Your task to perform on an android device: allow notifications from all sites in the chrome app Image 0: 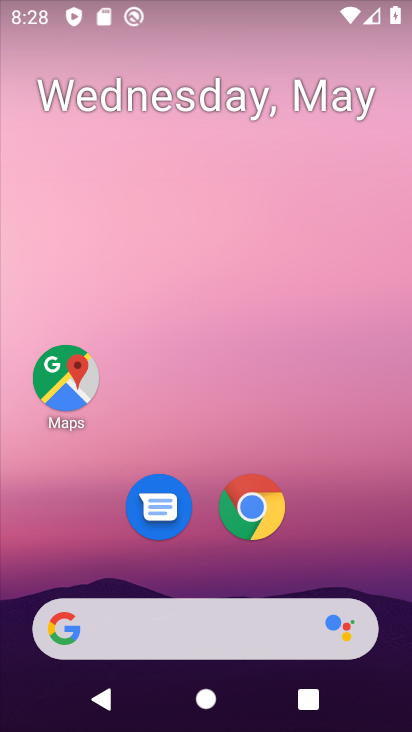
Step 0: press home button
Your task to perform on an android device: allow notifications from all sites in the chrome app Image 1: 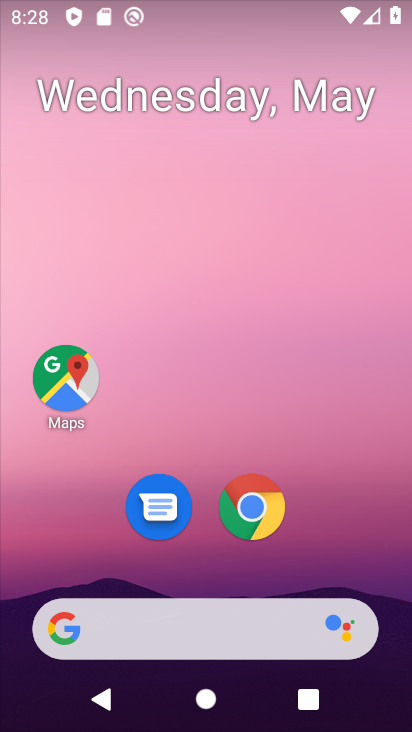
Step 1: click (382, 470)
Your task to perform on an android device: allow notifications from all sites in the chrome app Image 2: 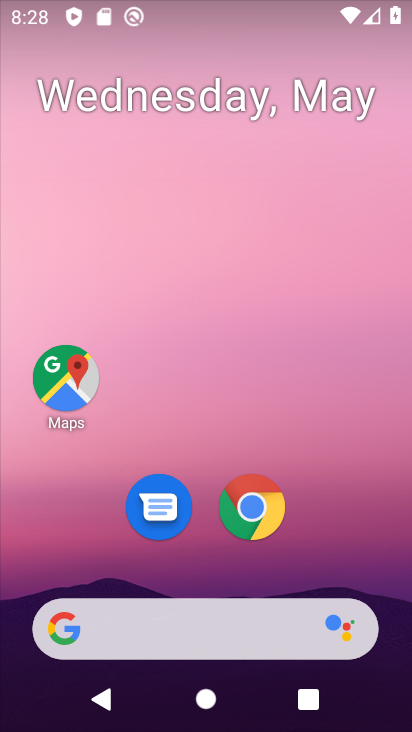
Step 2: drag from (382, 470) to (359, 356)
Your task to perform on an android device: allow notifications from all sites in the chrome app Image 3: 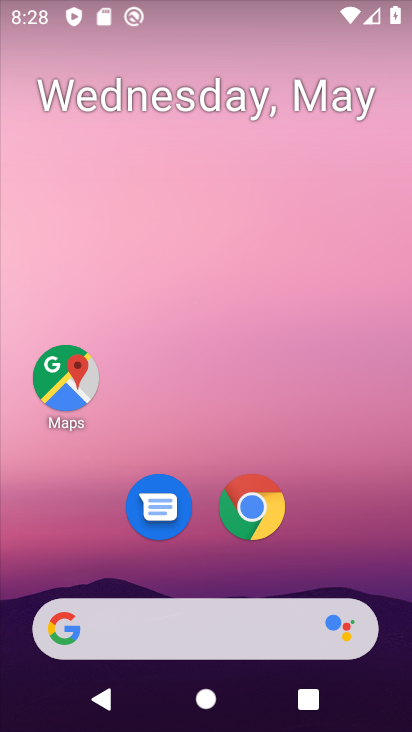
Step 3: drag from (391, 493) to (343, 168)
Your task to perform on an android device: allow notifications from all sites in the chrome app Image 4: 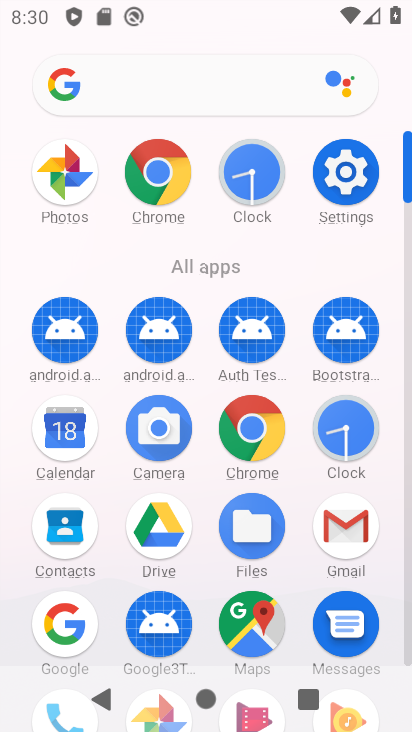
Step 4: click (131, 175)
Your task to perform on an android device: allow notifications from all sites in the chrome app Image 5: 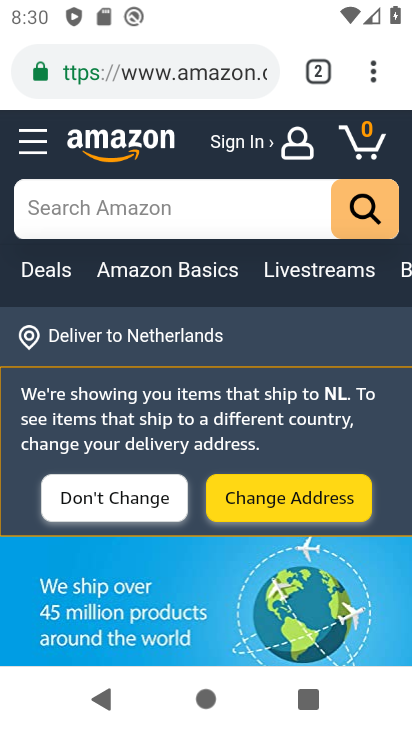
Step 5: drag from (380, 61) to (197, 511)
Your task to perform on an android device: allow notifications from all sites in the chrome app Image 6: 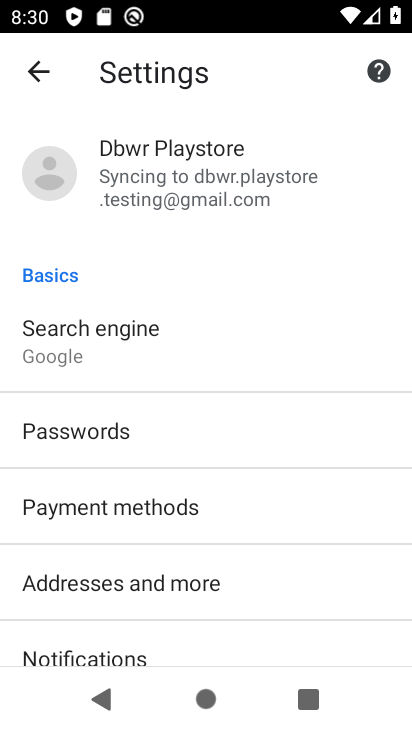
Step 6: drag from (189, 502) to (263, 201)
Your task to perform on an android device: allow notifications from all sites in the chrome app Image 7: 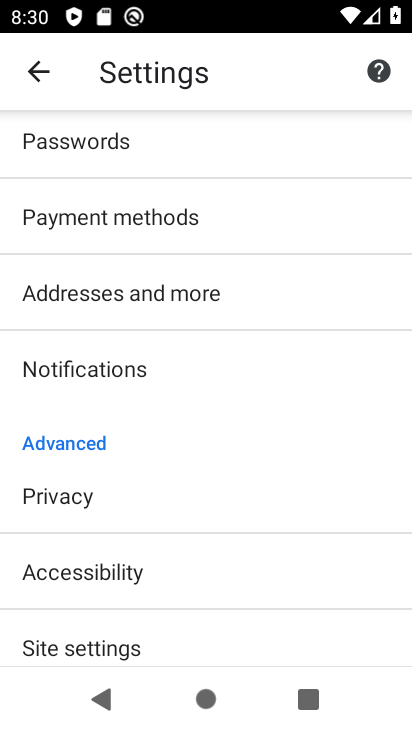
Step 7: drag from (169, 546) to (272, 220)
Your task to perform on an android device: allow notifications from all sites in the chrome app Image 8: 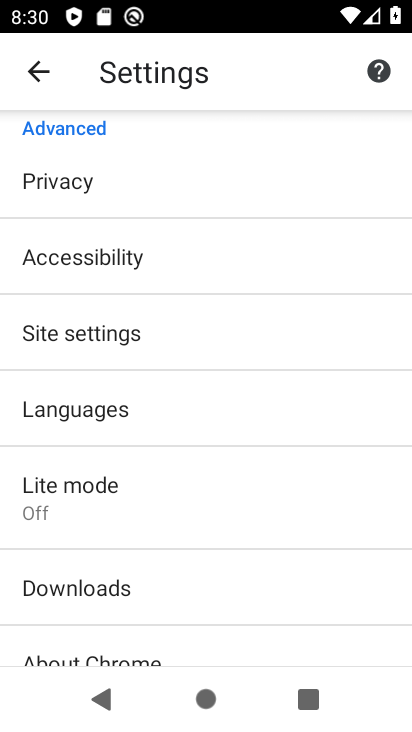
Step 8: drag from (181, 637) to (197, 438)
Your task to perform on an android device: allow notifications from all sites in the chrome app Image 9: 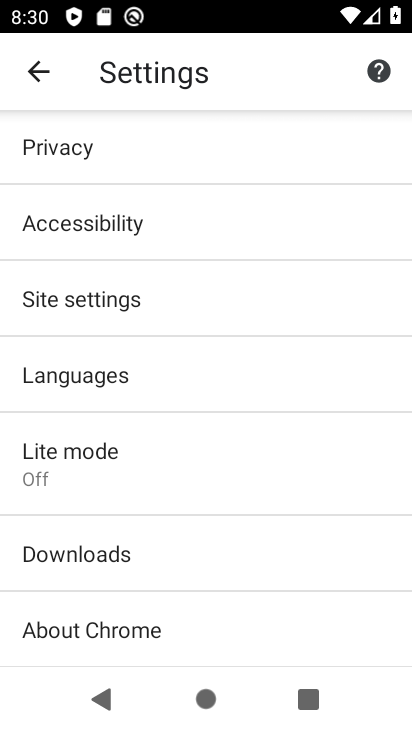
Step 9: drag from (358, 134) to (317, 490)
Your task to perform on an android device: allow notifications from all sites in the chrome app Image 10: 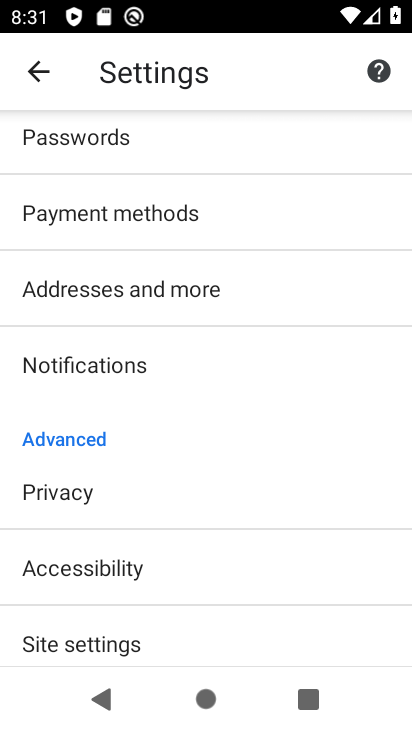
Step 10: drag from (344, 129) to (315, 402)
Your task to perform on an android device: allow notifications from all sites in the chrome app Image 11: 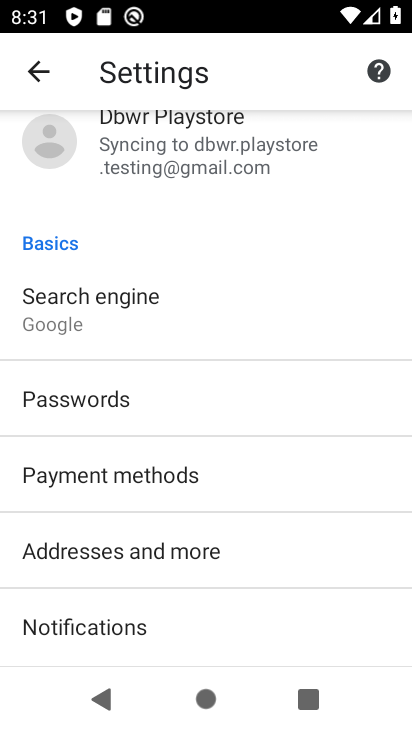
Step 11: drag from (315, 488) to (331, 221)
Your task to perform on an android device: allow notifications from all sites in the chrome app Image 12: 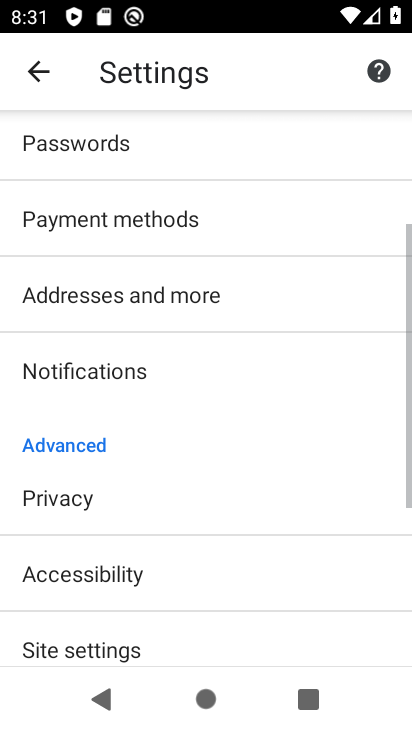
Step 12: drag from (329, 558) to (356, 224)
Your task to perform on an android device: allow notifications from all sites in the chrome app Image 13: 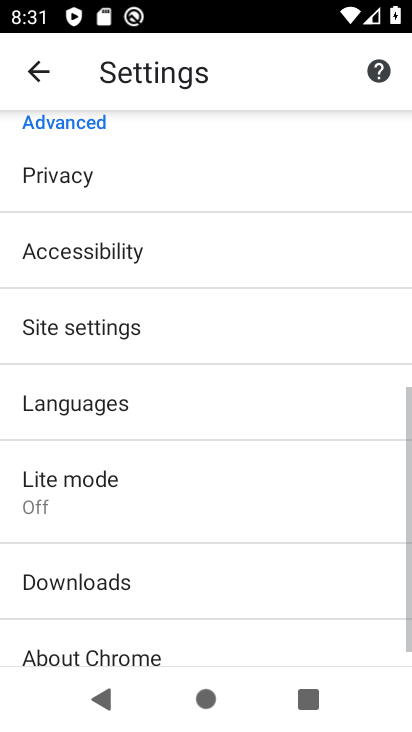
Step 13: drag from (333, 662) to (338, 454)
Your task to perform on an android device: allow notifications from all sites in the chrome app Image 14: 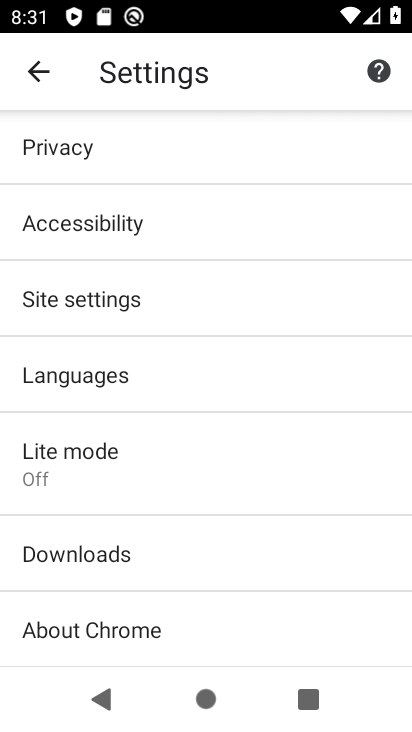
Step 14: click (104, 314)
Your task to perform on an android device: allow notifications from all sites in the chrome app Image 15: 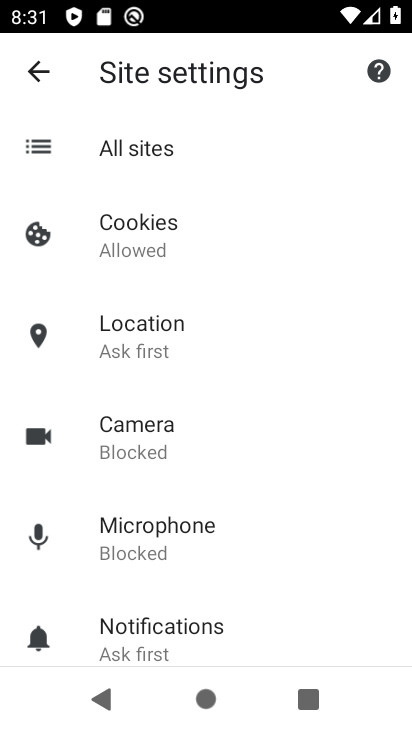
Step 15: drag from (216, 651) to (216, 438)
Your task to perform on an android device: allow notifications from all sites in the chrome app Image 16: 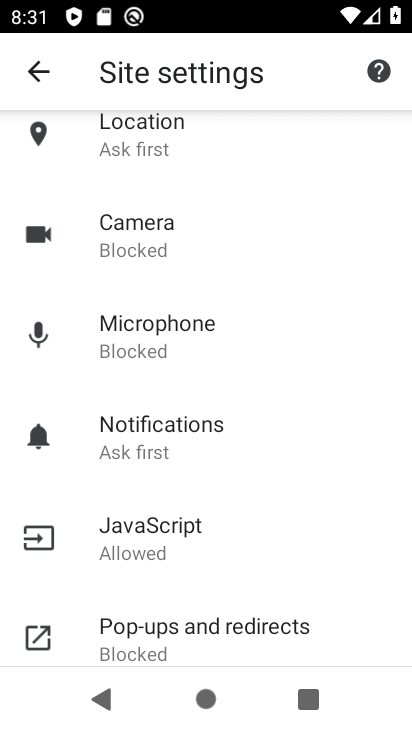
Step 16: drag from (238, 545) to (245, 454)
Your task to perform on an android device: allow notifications from all sites in the chrome app Image 17: 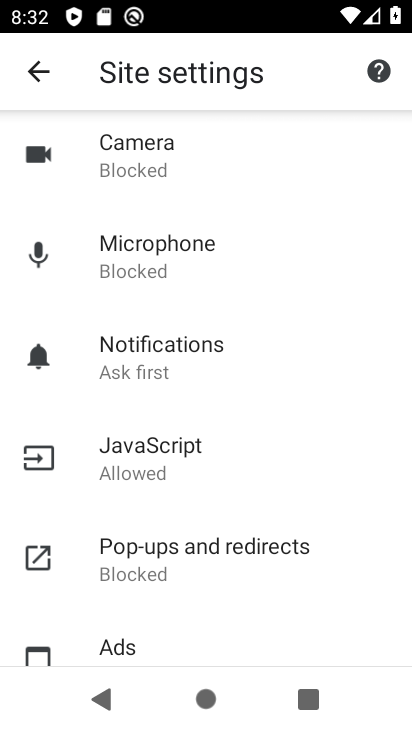
Step 17: drag from (121, 595) to (343, 209)
Your task to perform on an android device: allow notifications from all sites in the chrome app Image 18: 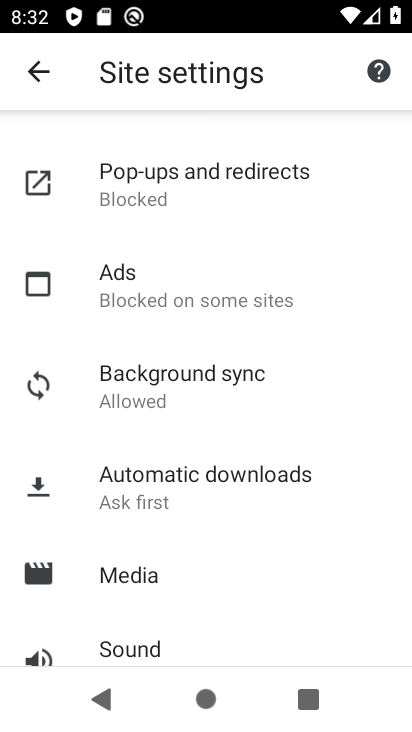
Step 18: drag from (268, 515) to (304, 327)
Your task to perform on an android device: allow notifications from all sites in the chrome app Image 19: 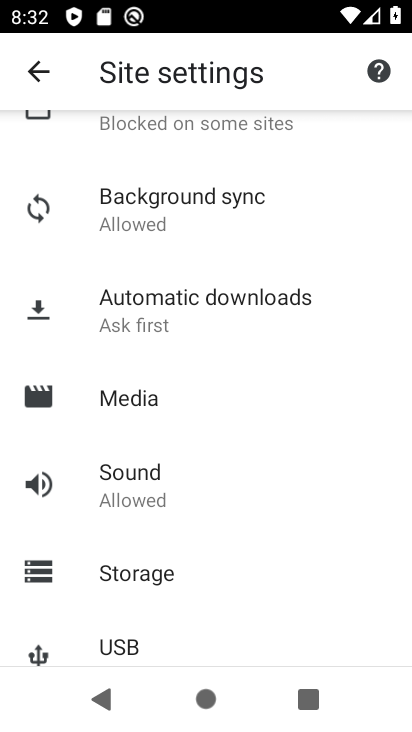
Step 19: drag from (288, 289) to (317, 132)
Your task to perform on an android device: allow notifications from all sites in the chrome app Image 20: 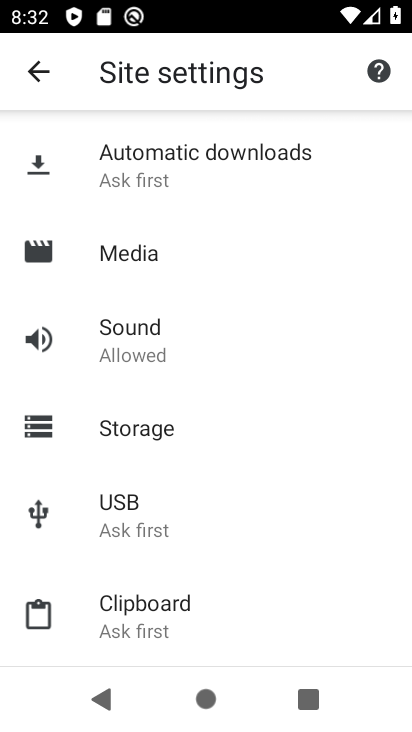
Step 20: drag from (214, 548) to (289, 158)
Your task to perform on an android device: allow notifications from all sites in the chrome app Image 21: 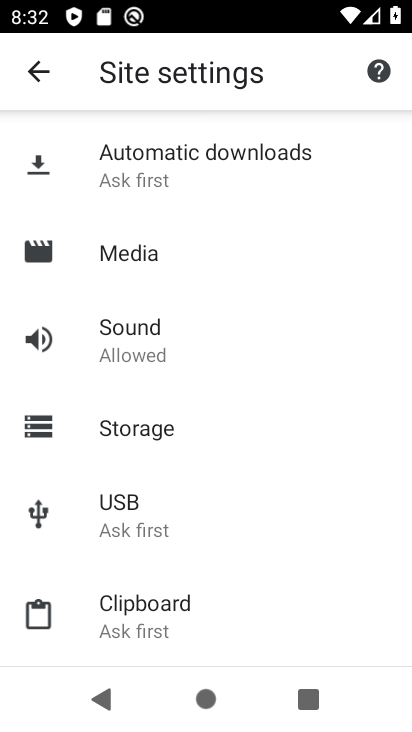
Step 21: drag from (275, 474) to (222, 228)
Your task to perform on an android device: allow notifications from all sites in the chrome app Image 22: 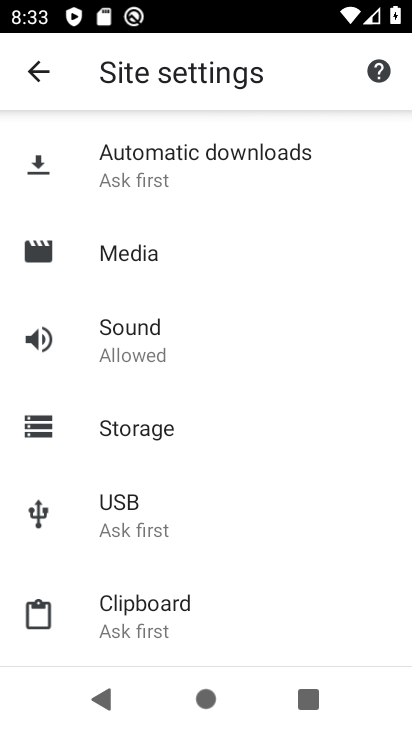
Step 22: drag from (234, 586) to (164, 392)
Your task to perform on an android device: allow notifications from all sites in the chrome app Image 23: 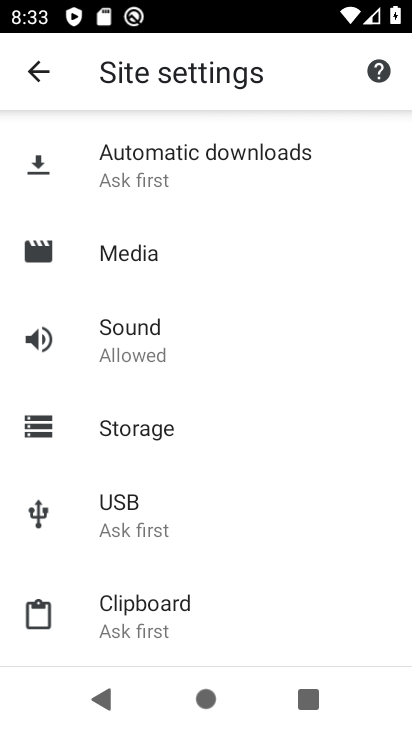
Step 23: drag from (247, 620) to (153, 361)
Your task to perform on an android device: allow notifications from all sites in the chrome app Image 24: 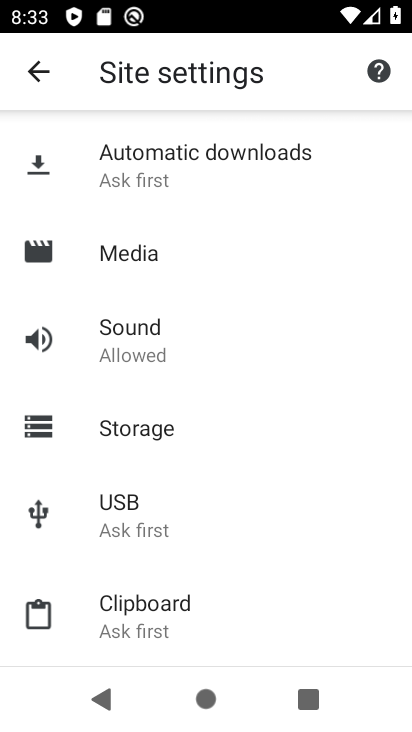
Step 24: drag from (219, 539) to (234, 396)
Your task to perform on an android device: allow notifications from all sites in the chrome app Image 25: 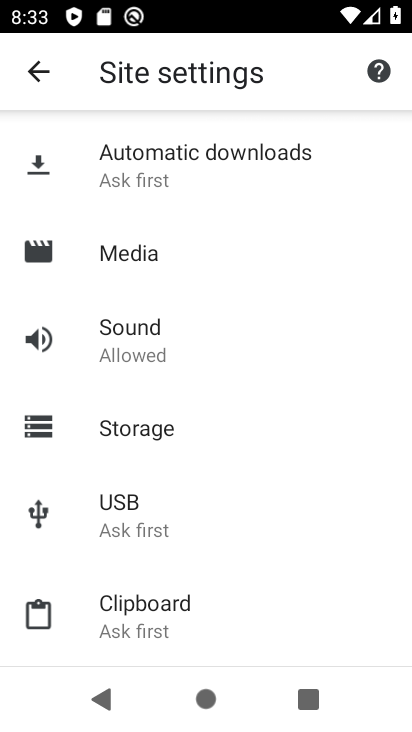
Step 25: drag from (80, 112) to (78, 300)
Your task to perform on an android device: allow notifications from all sites in the chrome app Image 26: 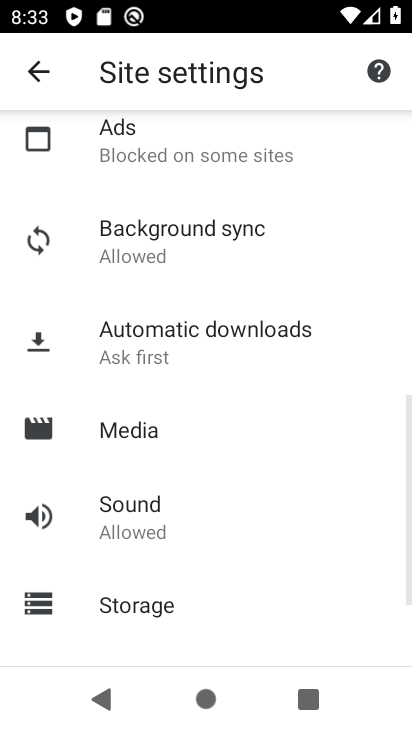
Step 26: drag from (78, 300) to (86, 561)
Your task to perform on an android device: allow notifications from all sites in the chrome app Image 27: 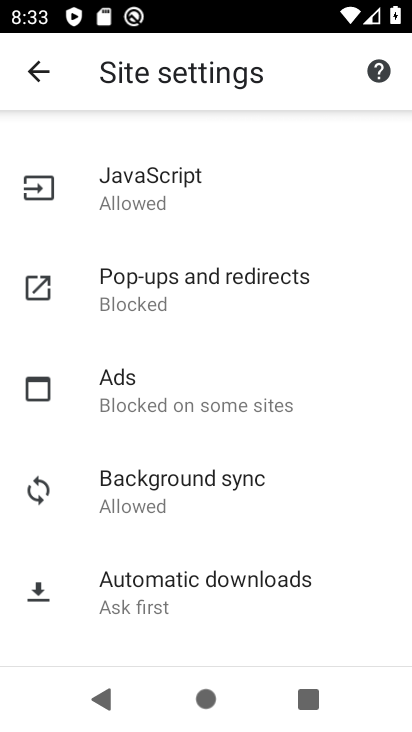
Step 27: drag from (184, 127) to (156, 361)
Your task to perform on an android device: allow notifications from all sites in the chrome app Image 28: 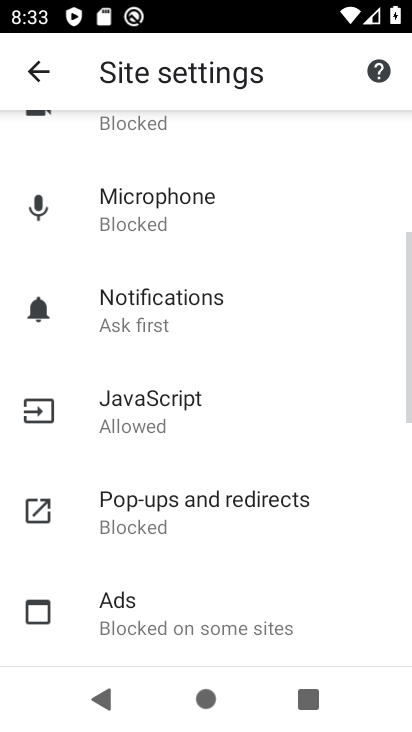
Step 28: drag from (123, 168) to (117, 261)
Your task to perform on an android device: allow notifications from all sites in the chrome app Image 29: 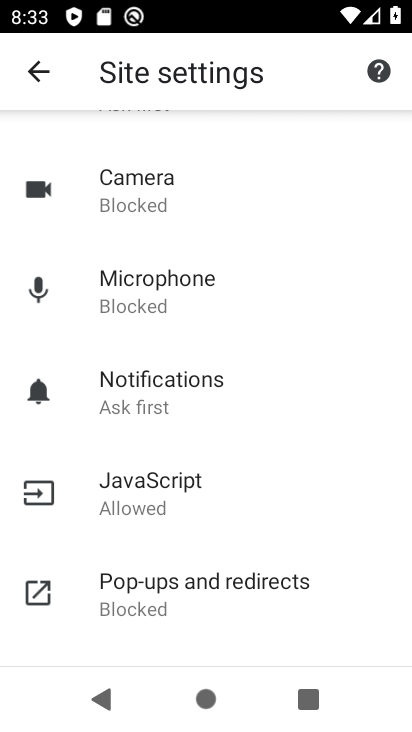
Step 29: drag from (154, 148) to (151, 620)
Your task to perform on an android device: allow notifications from all sites in the chrome app Image 30: 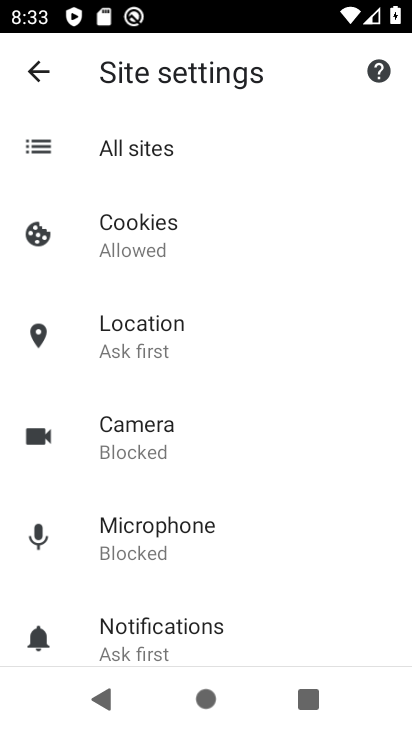
Step 30: click (198, 148)
Your task to perform on an android device: allow notifications from all sites in the chrome app Image 31: 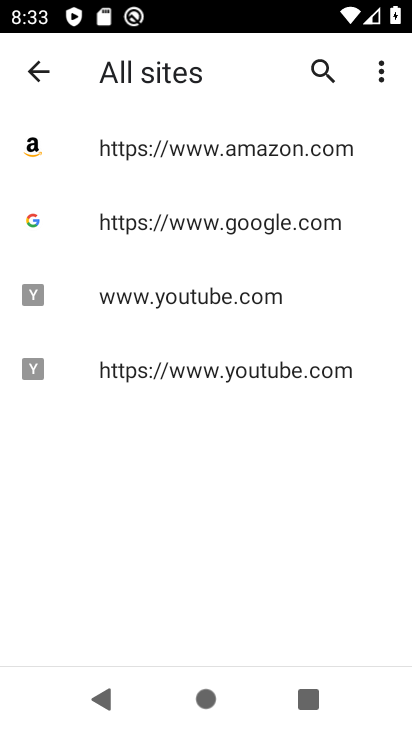
Step 31: click (176, 226)
Your task to perform on an android device: allow notifications from all sites in the chrome app Image 32: 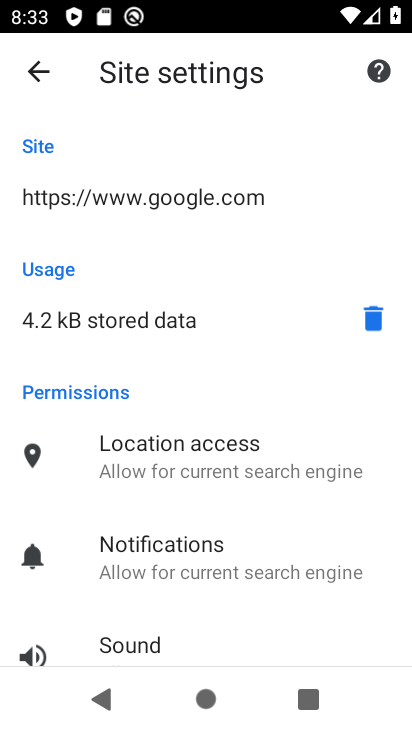
Step 32: drag from (292, 418) to (296, 341)
Your task to perform on an android device: allow notifications from all sites in the chrome app Image 33: 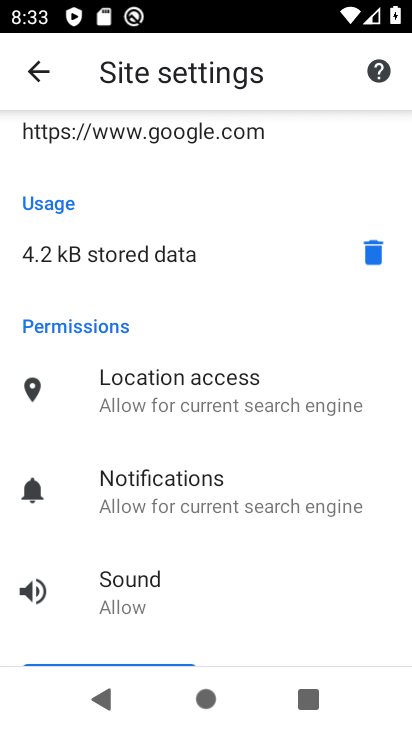
Step 33: click (181, 492)
Your task to perform on an android device: allow notifications from all sites in the chrome app Image 34: 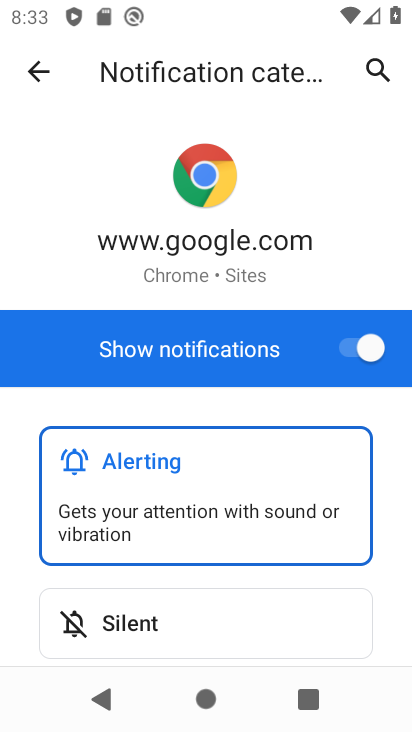
Step 34: drag from (392, 479) to (384, 53)
Your task to perform on an android device: allow notifications from all sites in the chrome app Image 35: 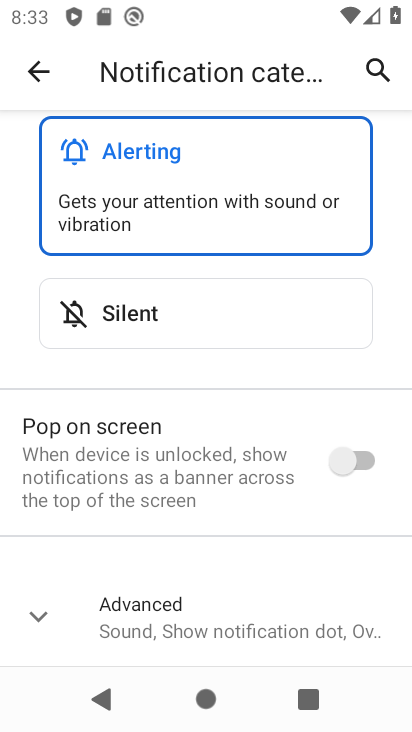
Step 35: click (342, 464)
Your task to perform on an android device: allow notifications from all sites in the chrome app Image 36: 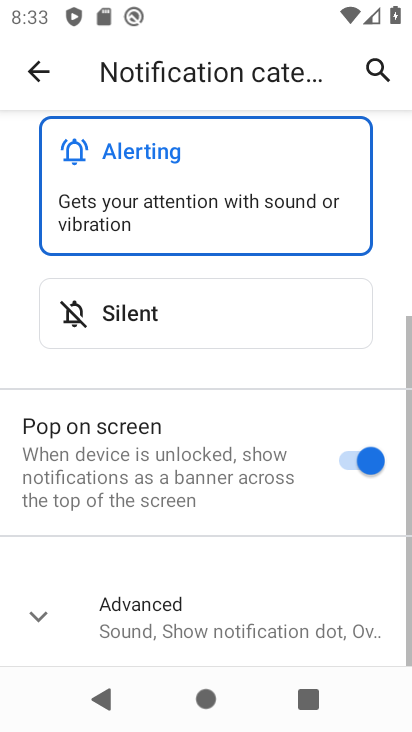
Step 36: drag from (312, 602) to (331, 351)
Your task to perform on an android device: allow notifications from all sites in the chrome app Image 37: 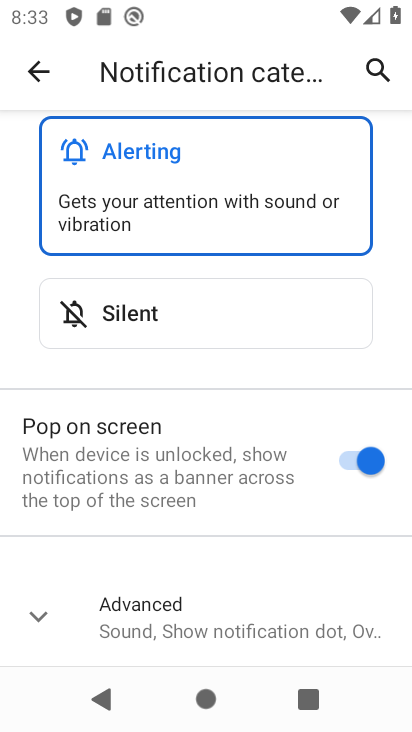
Step 37: click (145, 586)
Your task to perform on an android device: allow notifications from all sites in the chrome app Image 38: 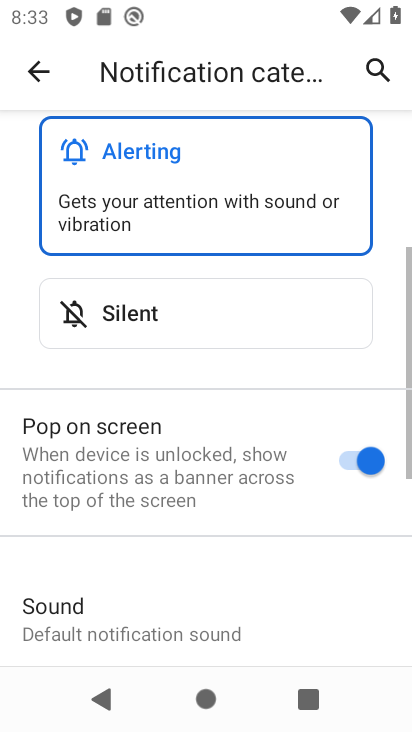
Step 38: drag from (286, 632) to (315, 387)
Your task to perform on an android device: allow notifications from all sites in the chrome app Image 39: 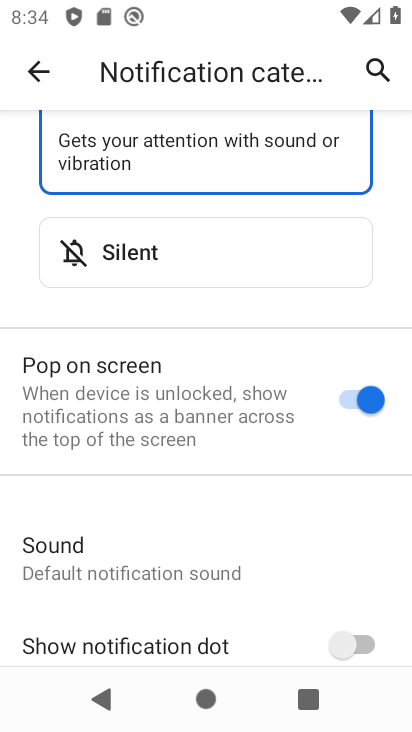
Step 39: drag from (293, 536) to (265, 204)
Your task to perform on an android device: allow notifications from all sites in the chrome app Image 40: 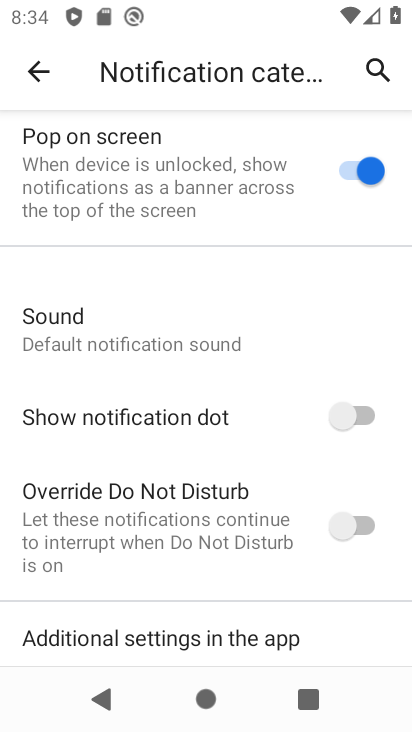
Step 40: click (284, 416)
Your task to perform on an android device: allow notifications from all sites in the chrome app Image 41: 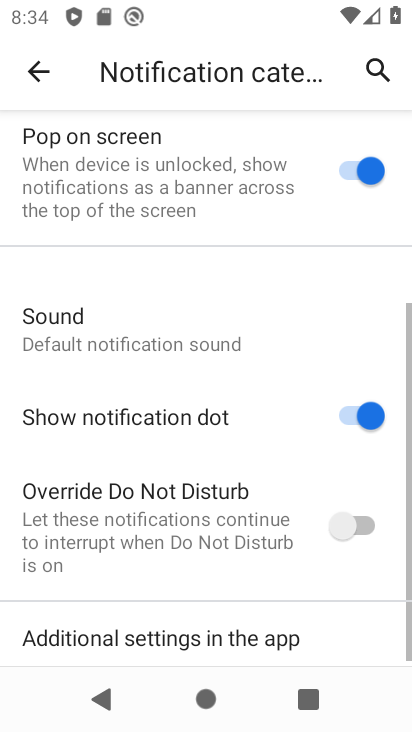
Step 41: click (278, 503)
Your task to perform on an android device: allow notifications from all sites in the chrome app Image 42: 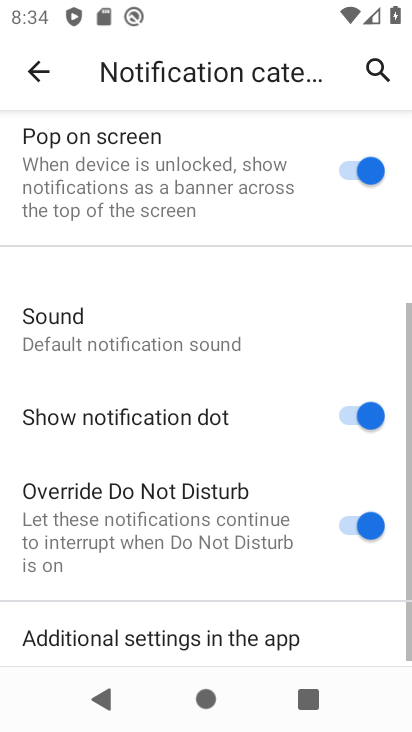
Step 42: task complete